Your task to perform on an android device: Search for the best rated drill on Lowes.com Image 0: 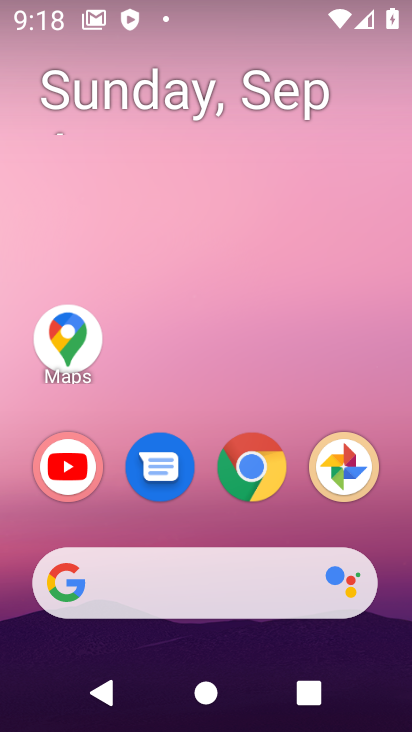
Step 0: click (251, 453)
Your task to perform on an android device: Search for the best rated drill on Lowes.com Image 1: 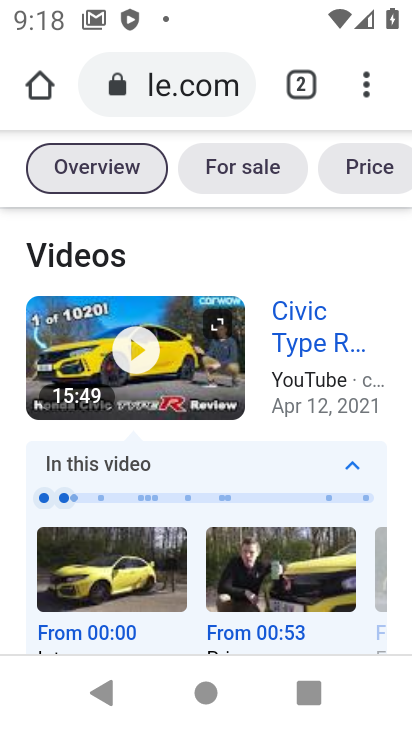
Step 1: click (173, 82)
Your task to perform on an android device: Search for the best rated drill on Lowes.com Image 2: 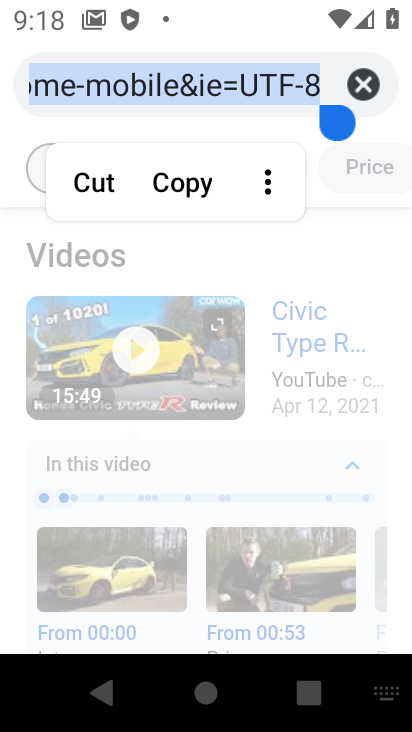
Step 2: type "lowes.com"
Your task to perform on an android device: Search for the best rated drill on Lowes.com Image 3: 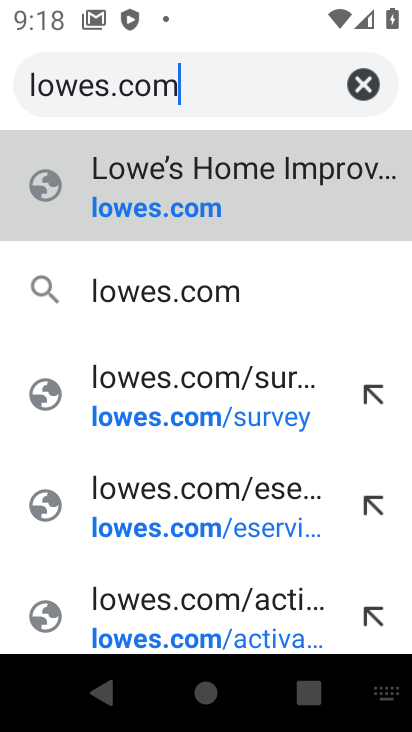
Step 3: click (140, 184)
Your task to perform on an android device: Search for the best rated drill on Lowes.com Image 4: 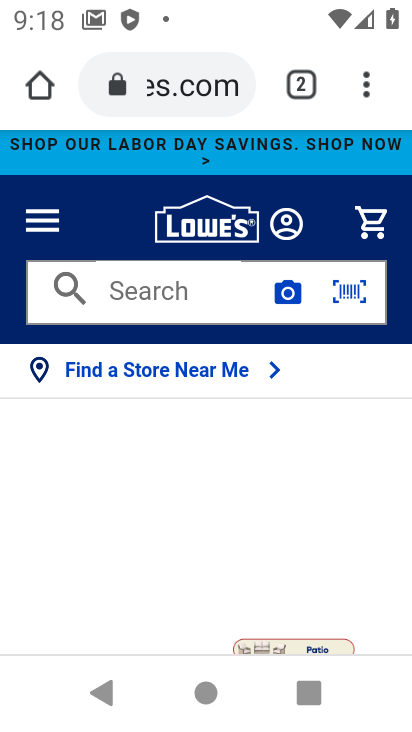
Step 4: click (167, 298)
Your task to perform on an android device: Search for the best rated drill on Lowes.com Image 5: 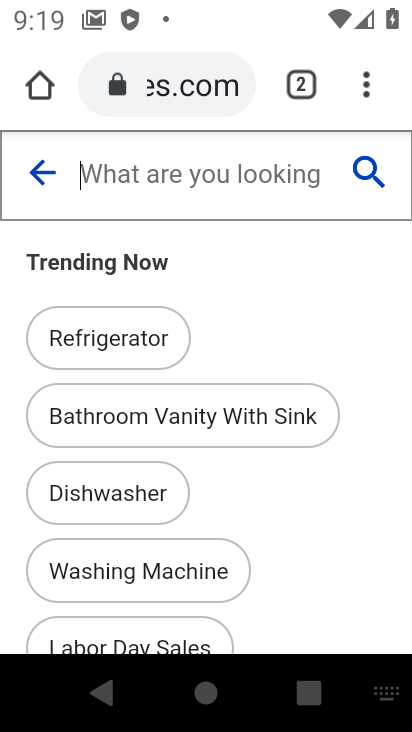
Step 5: type "drill"
Your task to perform on an android device: Search for the best rated drill on Lowes.com Image 6: 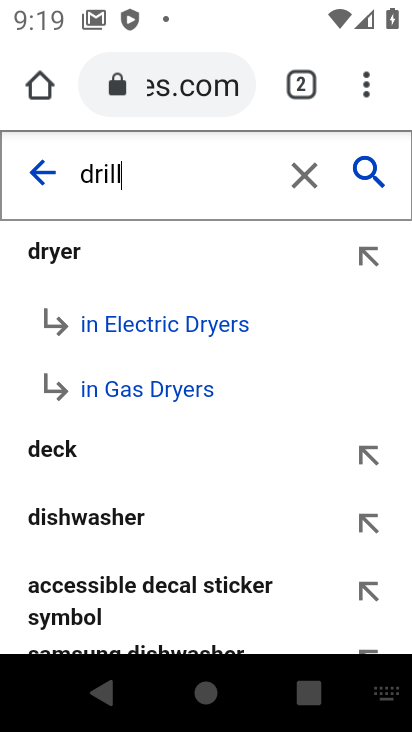
Step 6: type ""
Your task to perform on an android device: Search for the best rated drill on Lowes.com Image 7: 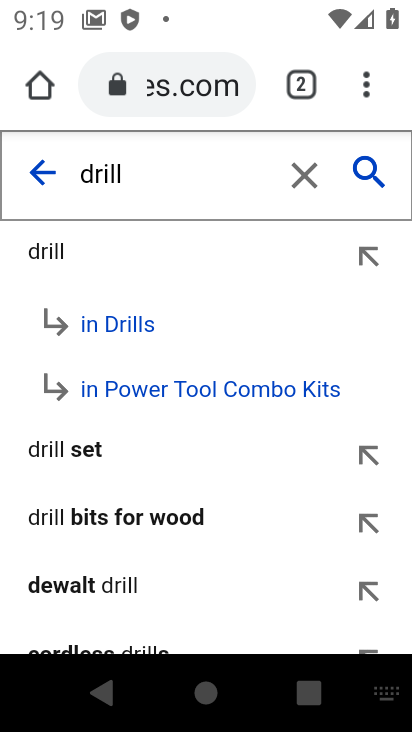
Step 7: click (44, 454)
Your task to perform on an android device: Search for the best rated drill on Lowes.com Image 8: 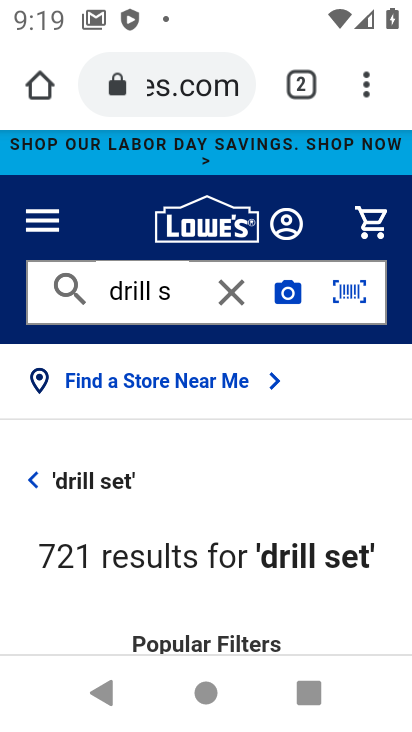
Step 8: click (322, 490)
Your task to perform on an android device: Search for the best rated drill on Lowes.com Image 9: 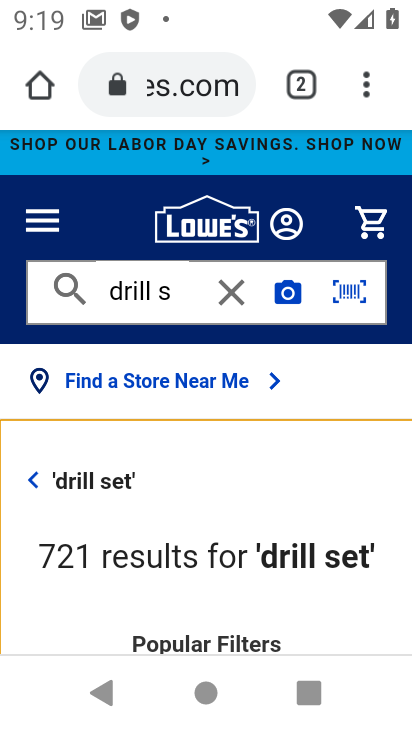
Step 9: drag from (342, 452) to (337, 243)
Your task to perform on an android device: Search for the best rated drill on Lowes.com Image 10: 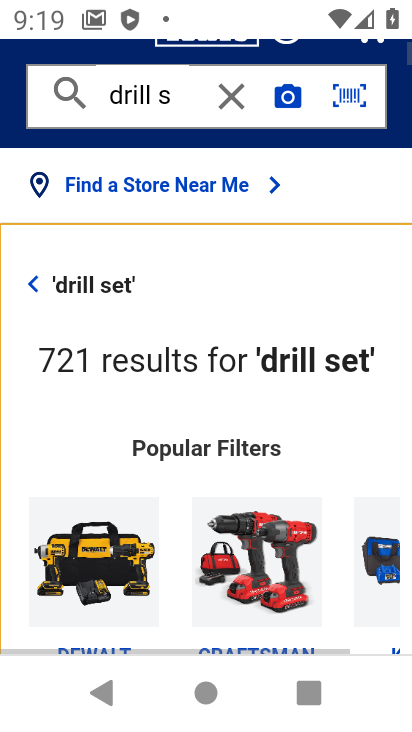
Step 10: drag from (342, 458) to (347, 269)
Your task to perform on an android device: Search for the best rated drill on Lowes.com Image 11: 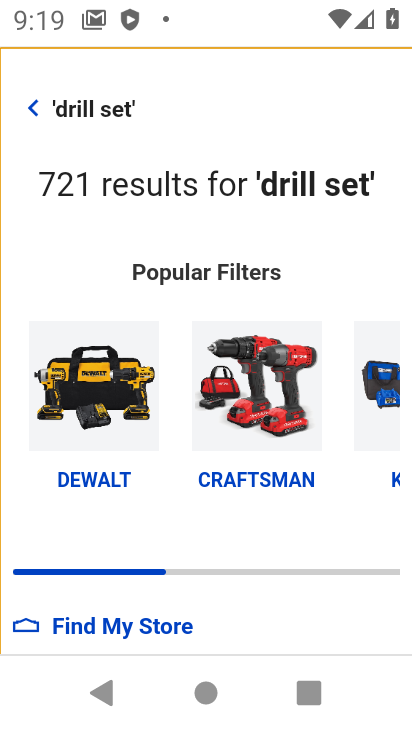
Step 11: drag from (337, 531) to (316, 180)
Your task to perform on an android device: Search for the best rated drill on Lowes.com Image 12: 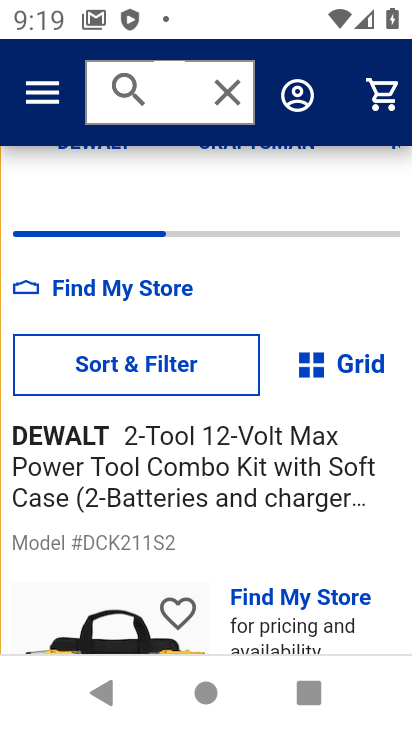
Step 12: click (168, 367)
Your task to perform on an android device: Search for the best rated drill on Lowes.com Image 13: 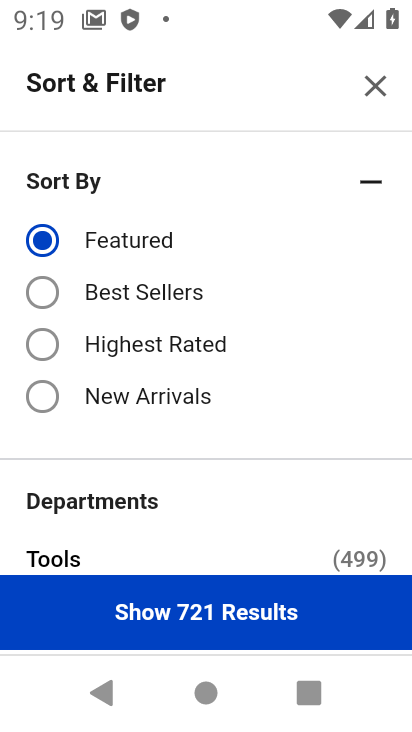
Step 13: click (37, 349)
Your task to perform on an android device: Search for the best rated drill on Lowes.com Image 14: 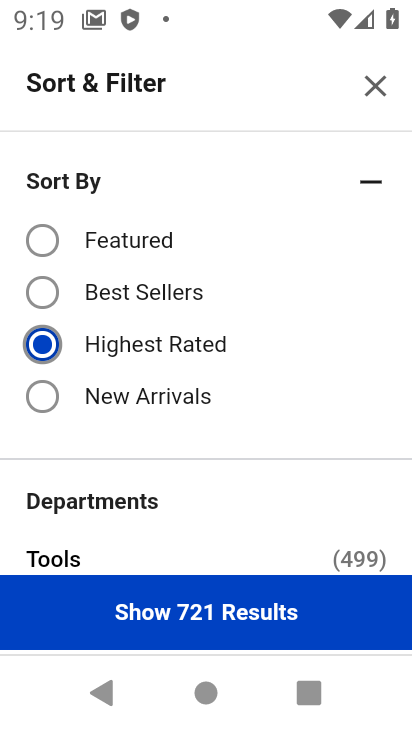
Step 14: drag from (230, 516) to (271, 350)
Your task to perform on an android device: Search for the best rated drill on Lowes.com Image 15: 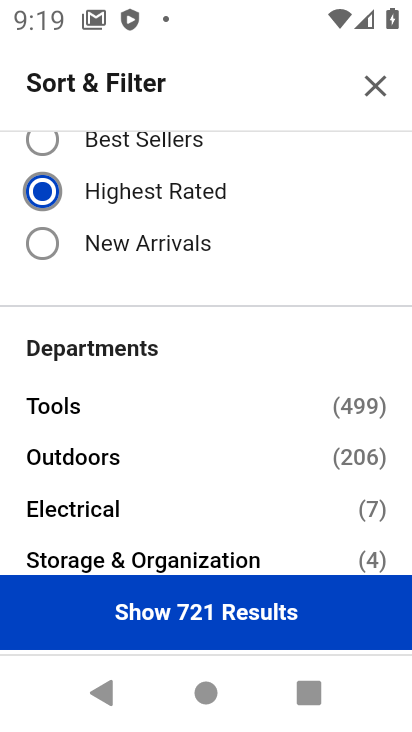
Step 15: drag from (233, 505) to (244, 212)
Your task to perform on an android device: Search for the best rated drill on Lowes.com Image 16: 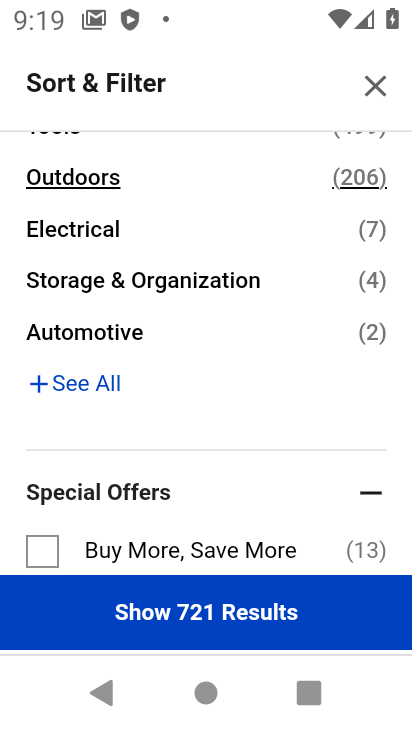
Step 16: click (233, 210)
Your task to perform on an android device: Search for the best rated drill on Lowes.com Image 17: 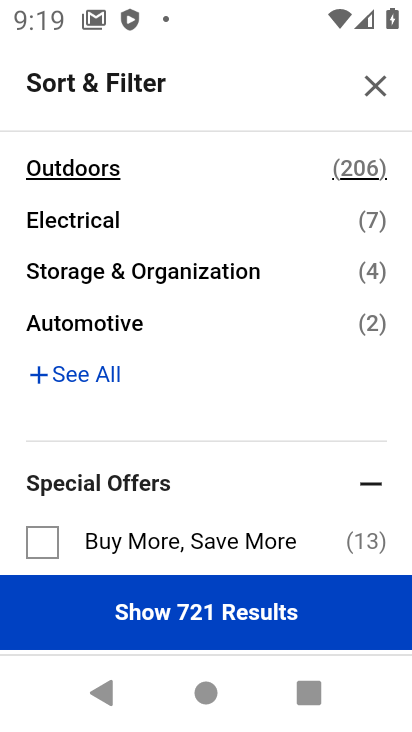
Step 17: click (227, 623)
Your task to perform on an android device: Search for the best rated drill on Lowes.com Image 18: 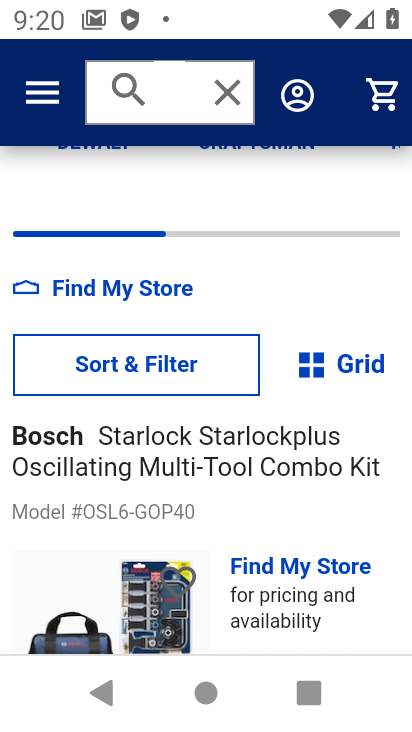
Step 18: drag from (240, 399) to (240, 271)
Your task to perform on an android device: Search for the best rated drill on Lowes.com Image 19: 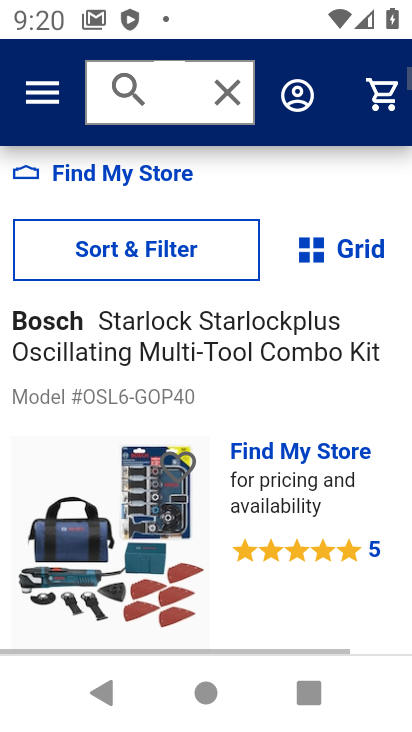
Step 19: drag from (293, 499) to (302, 303)
Your task to perform on an android device: Search for the best rated drill on Lowes.com Image 20: 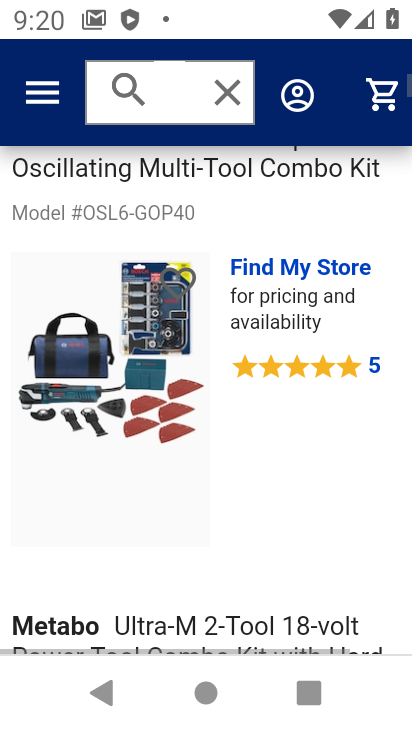
Step 20: drag from (213, 555) to (232, 326)
Your task to perform on an android device: Search for the best rated drill on Lowes.com Image 21: 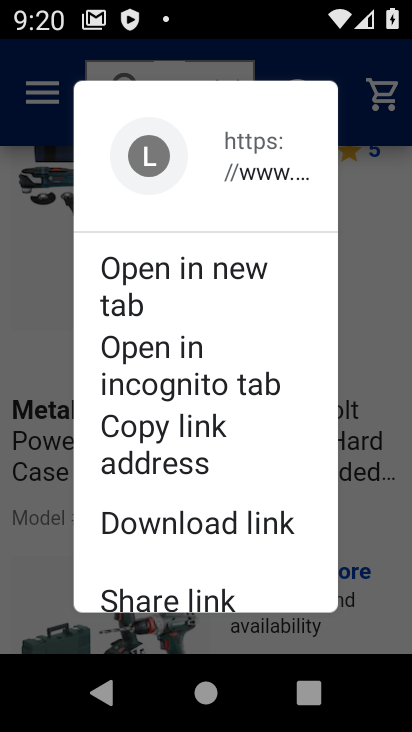
Step 21: drag from (410, 549) to (392, 345)
Your task to perform on an android device: Search for the best rated drill on Lowes.com Image 22: 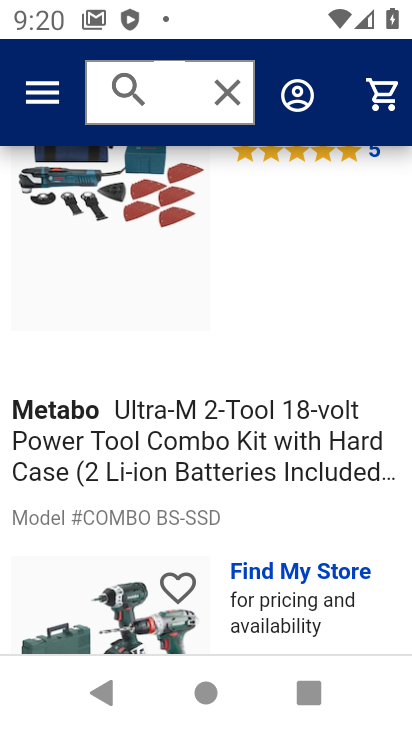
Step 22: drag from (362, 527) to (355, 284)
Your task to perform on an android device: Search for the best rated drill on Lowes.com Image 23: 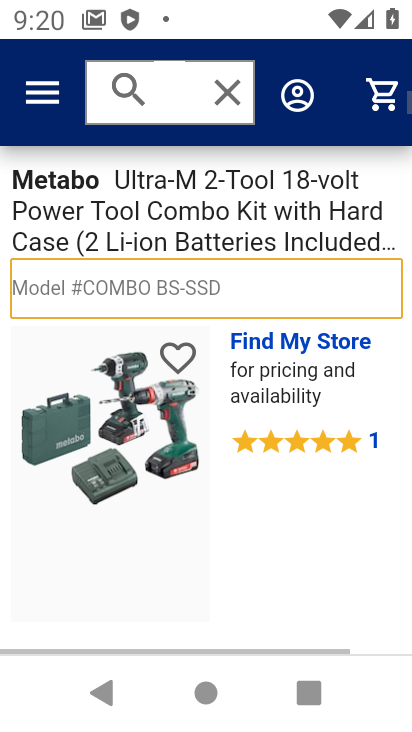
Step 23: drag from (332, 572) to (291, 314)
Your task to perform on an android device: Search for the best rated drill on Lowes.com Image 24: 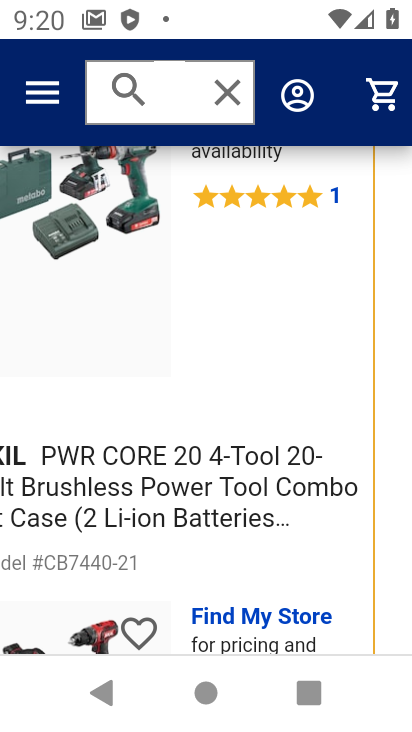
Step 24: drag from (306, 542) to (277, 298)
Your task to perform on an android device: Search for the best rated drill on Lowes.com Image 25: 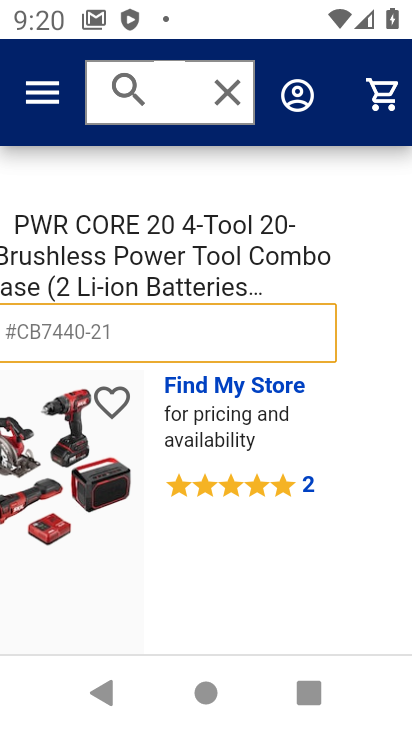
Step 25: drag from (221, 514) to (211, 340)
Your task to perform on an android device: Search for the best rated drill on Lowes.com Image 26: 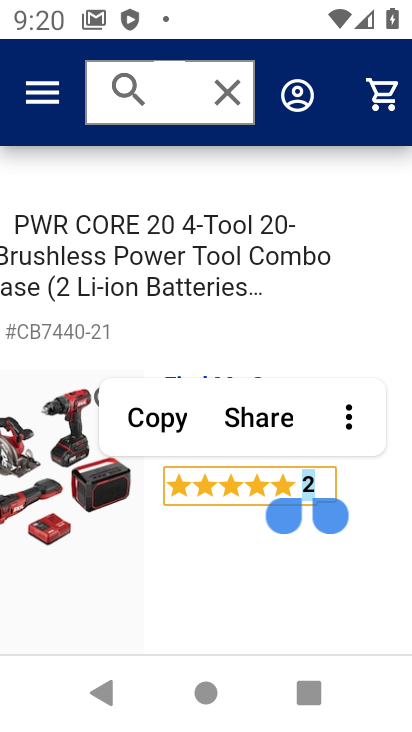
Step 26: drag from (227, 532) to (212, 302)
Your task to perform on an android device: Search for the best rated drill on Lowes.com Image 27: 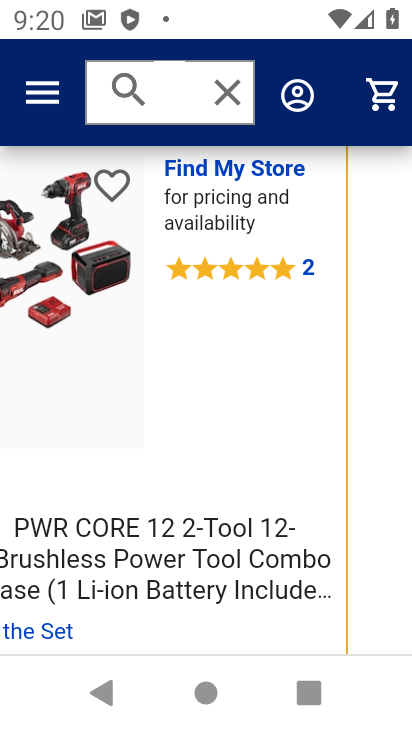
Step 27: drag from (168, 567) to (188, 268)
Your task to perform on an android device: Search for the best rated drill on Lowes.com Image 28: 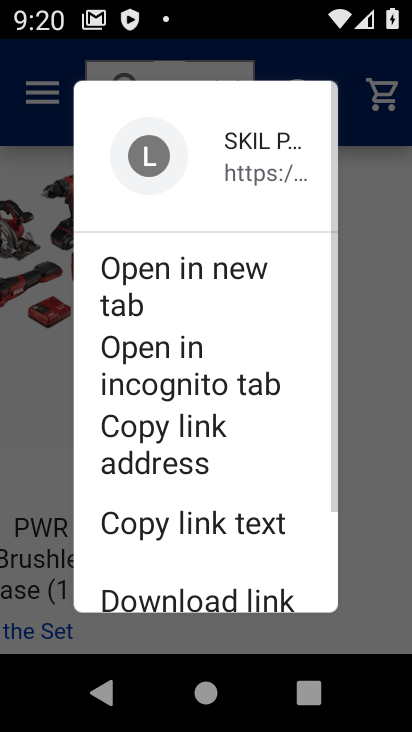
Step 28: click (383, 426)
Your task to perform on an android device: Search for the best rated drill on Lowes.com Image 29: 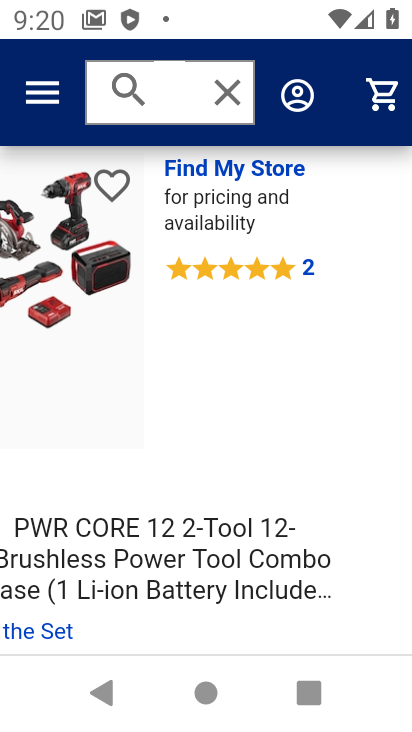
Step 29: task complete